Your task to perform on an android device: visit the assistant section in the google photos Image 0: 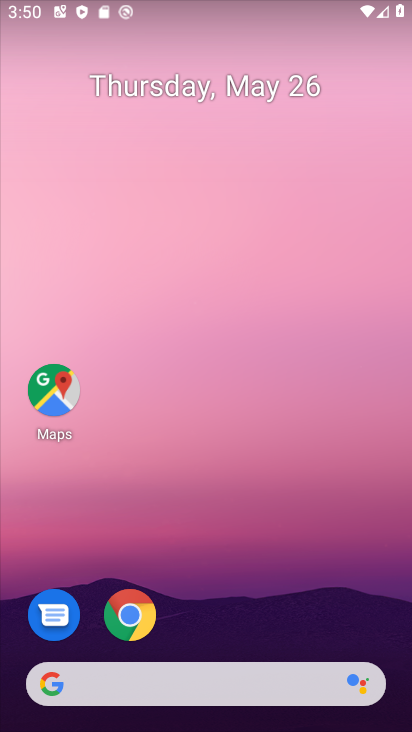
Step 0: drag from (273, 632) to (231, 110)
Your task to perform on an android device: visit the assistant section in the google photos Image 1: 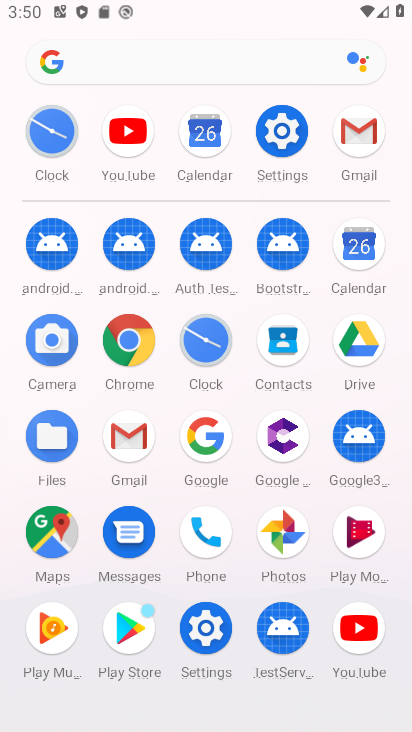
Step 1: click (281, 539)
Your task to perform on an android device: visit the assistant section in the google photos Image 2: 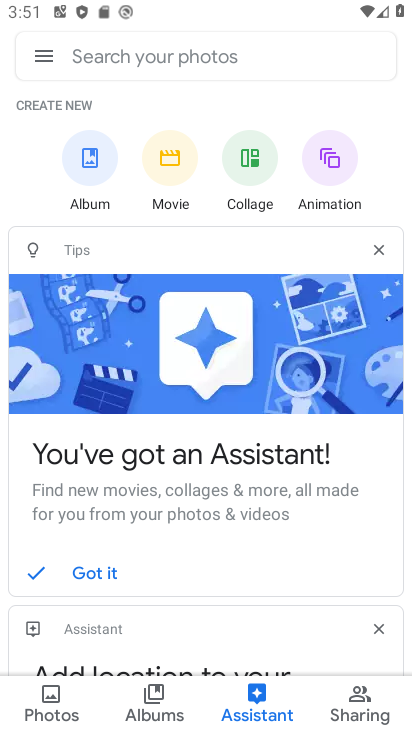
Step 2: task complete